Your task to perform on an android device: Open Google Chrome Image 0: 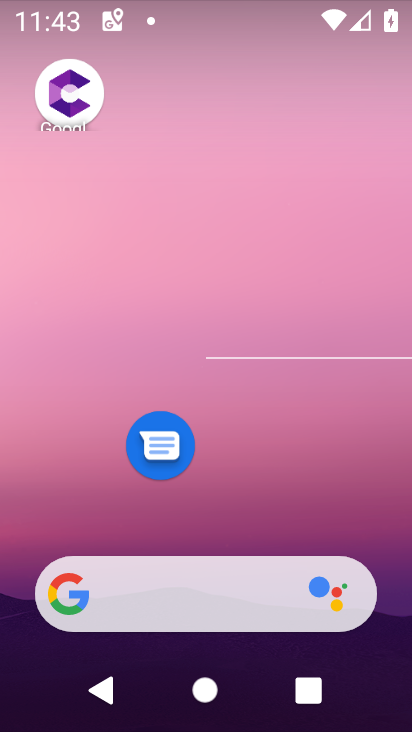
Step 0: click (257, 154)
Your task to perform on an android device: Open Google Chrome Image 1: 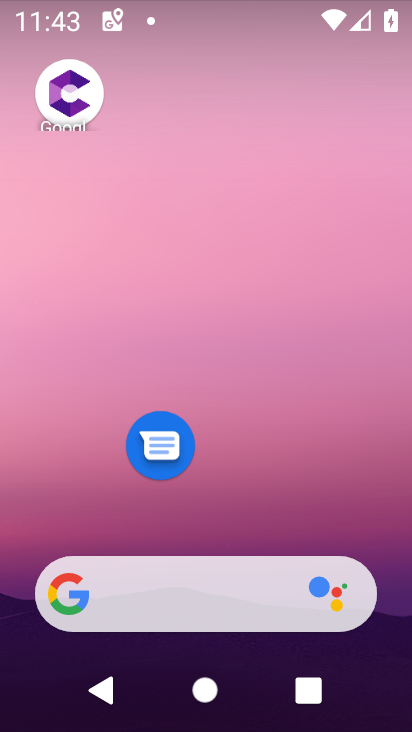
Step 1: drag from (223, 528) to (211, 137)
Your task to perform on an android device: Open Google Chrome Image 2: 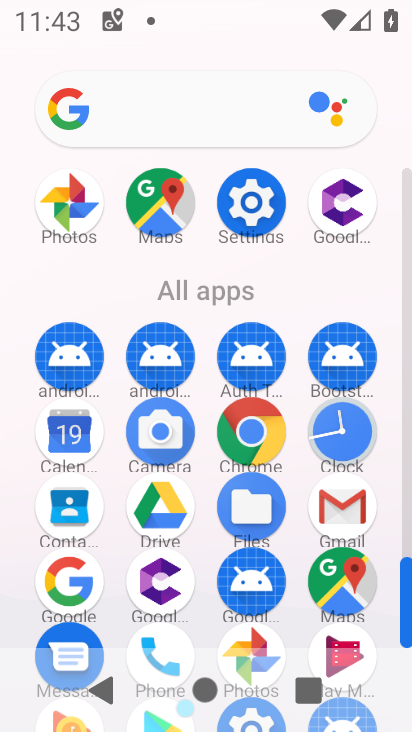
Step 2: click (242, 421)
Your task to perform on an android device: Open Google Chrome Image 3: 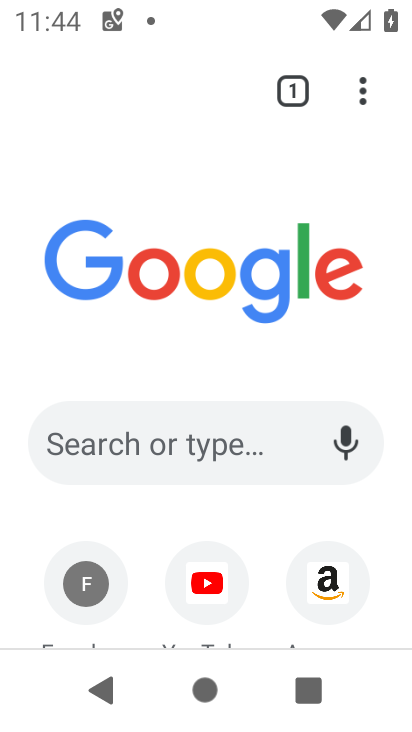
Step 3: task complete